Your task to perform on an android device: Show me the alarms in the clock app Image 0: 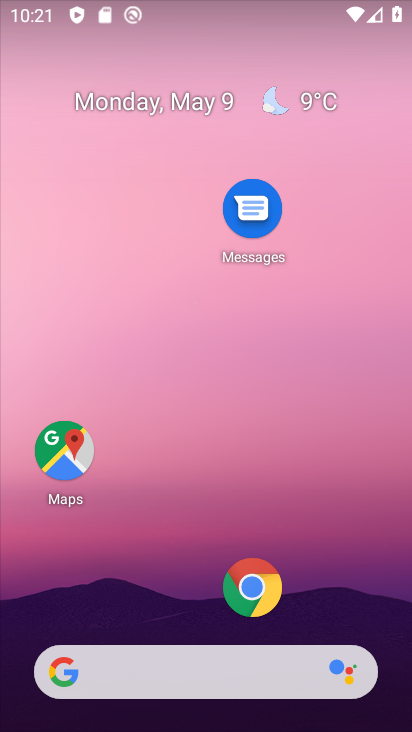
Step 0: drag from (204, 622) to (260, 273)
Your task to perform on an android device: Show me the alarms in the clock app Image 1: 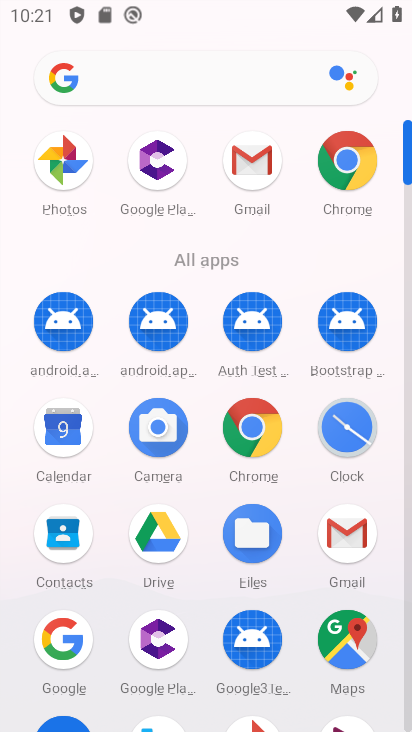
Step 1: drag from (208, 677) to (260, 247)
Your task to perform on an android device: Show me the alarms in the clock app Image 2: 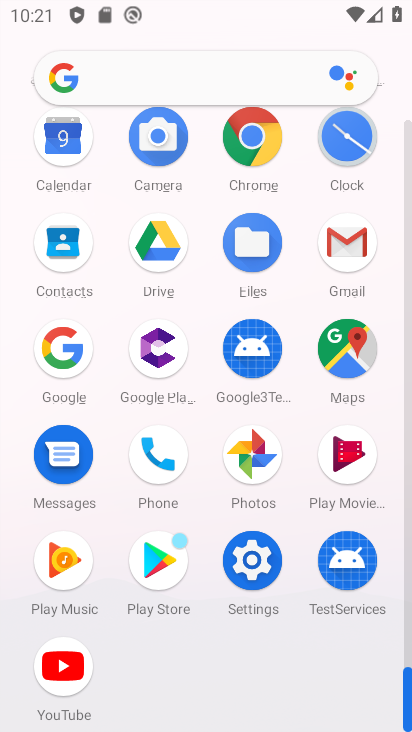
Step 2: click (346, 144)
Your task to perform on an android device: Show me the alarms in the clock app Image 3: 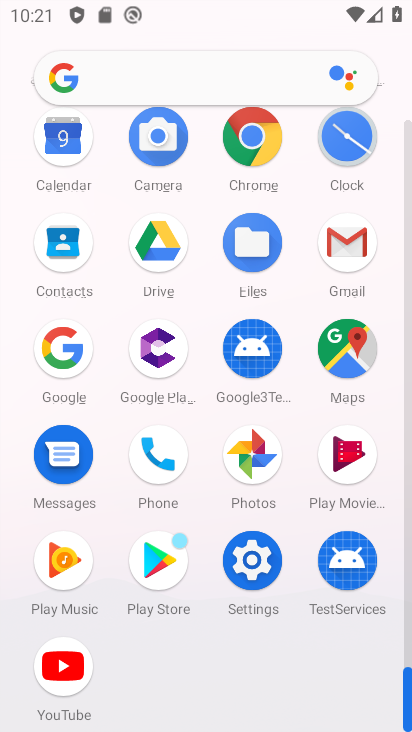
Step 3: click (346, 144)
Your task to perform on an android device: Show me the alarms in the clock app Image 4: 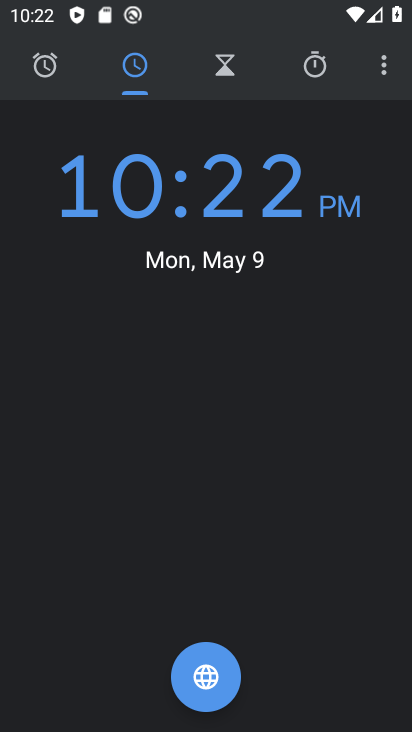
Step 4: click (380, 64)
Your task to perform on an android device: Show me the alarms in the clock app Image 5: 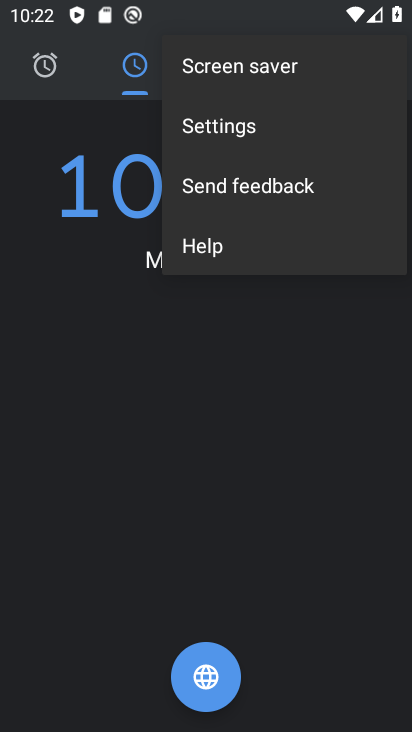
Step 5: click (260, 124)
Your task to perform on an android device: Show me the alarms in the clock app Image 6: 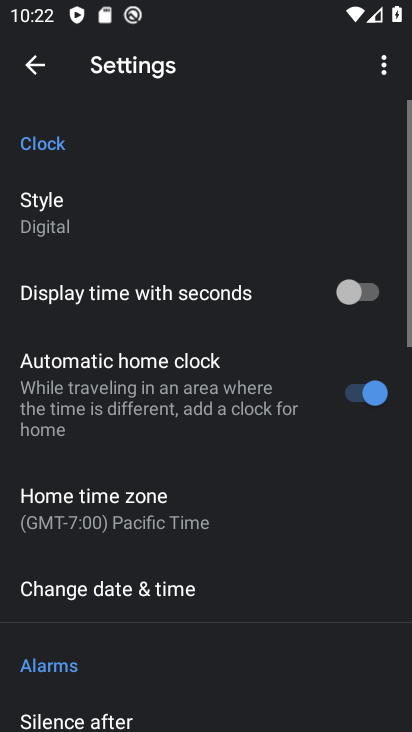
Step 6: drag from (161, 491) to (166, 253)
Your task to perform on an android device: Show me the alarms in the clock app Image 7: 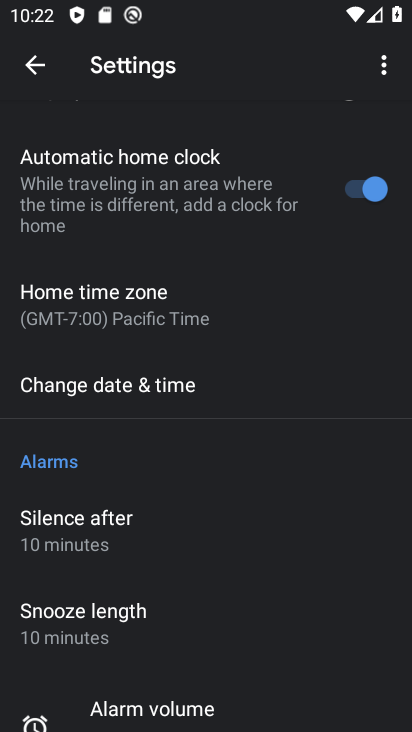
Step 7: drag from (203, 524) to (275, 175)
Your task to perform on an android device: Show me the alarms in the clock app Image 8: 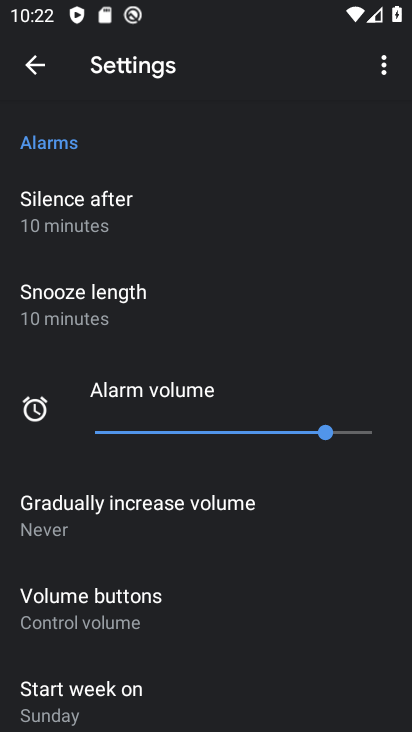
Step 8: click (41, 73)
Your task to perform on an android device: Show me the alarms in the clock app Image 9: 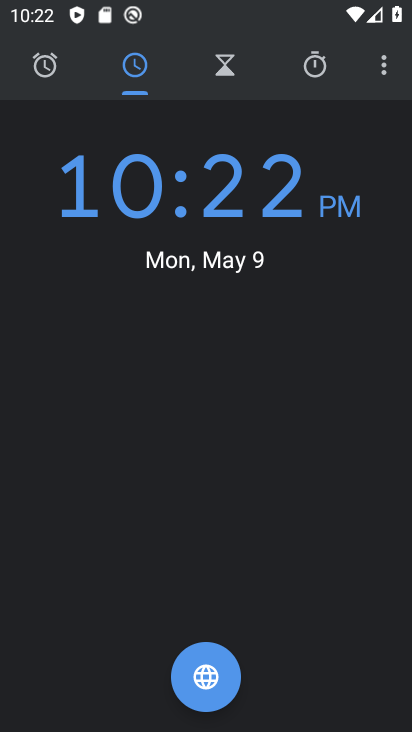
Step 9: click (38, 69)
Your task to perform on an android device: Show me the alarms in the clock app Image 10: 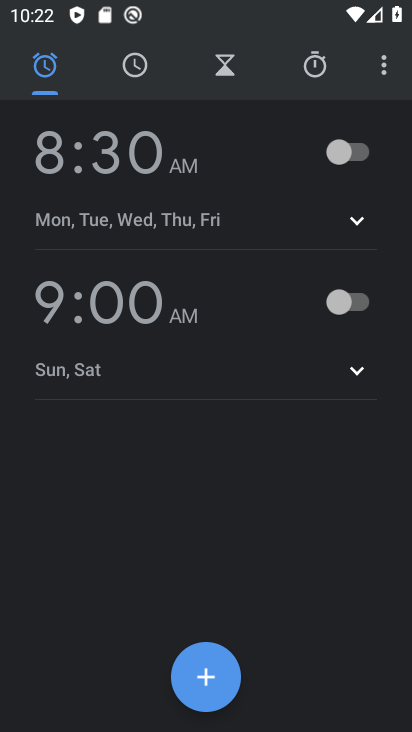
Step 10: task complete